Your task to perform on an android device: set the timer Image 0: 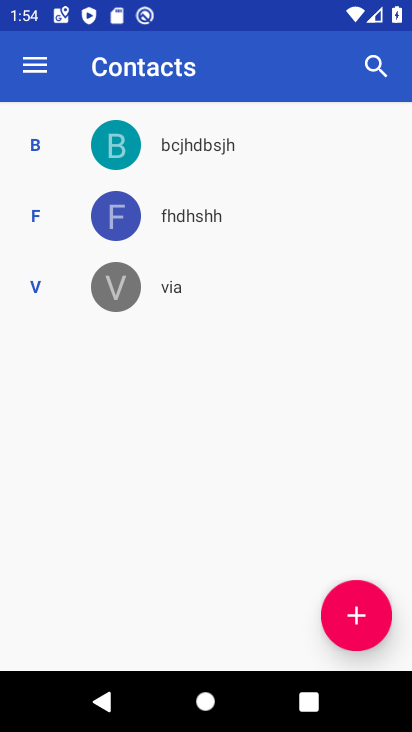
Step 0: press home button
Your task to perform on an android device: set the timer Image 1: 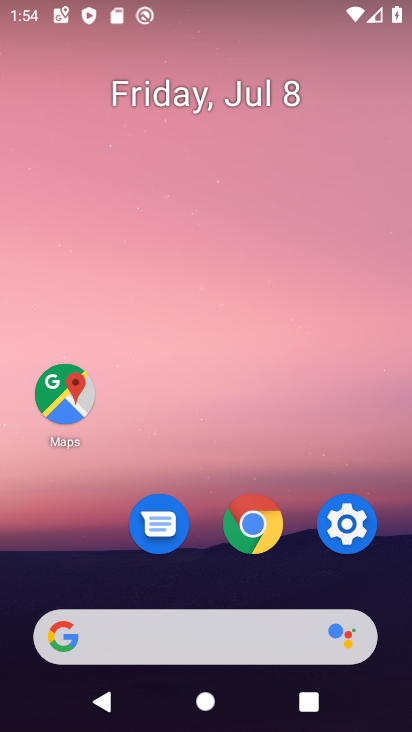
Step 1: drag from (243, 661) to (148, 167)
Your task to perform on an android device: set the timer Image 2: 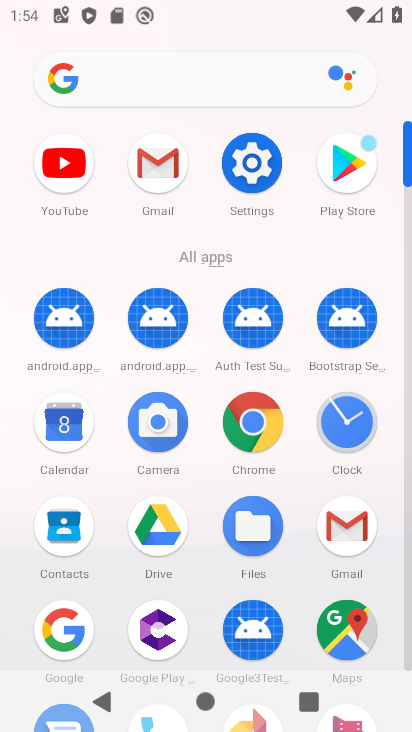
Step 2: click (331, 425)
Your task to perform on an android device: set the timer Image 3: 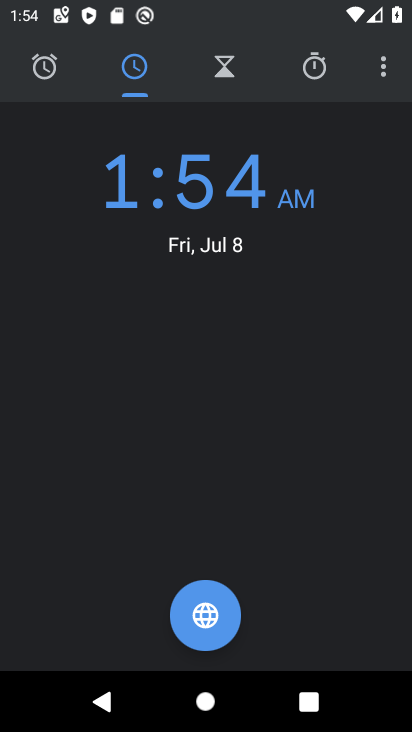
Step 3: click (216, 76)
Your task to perform on an android device: set the timer Image 4: 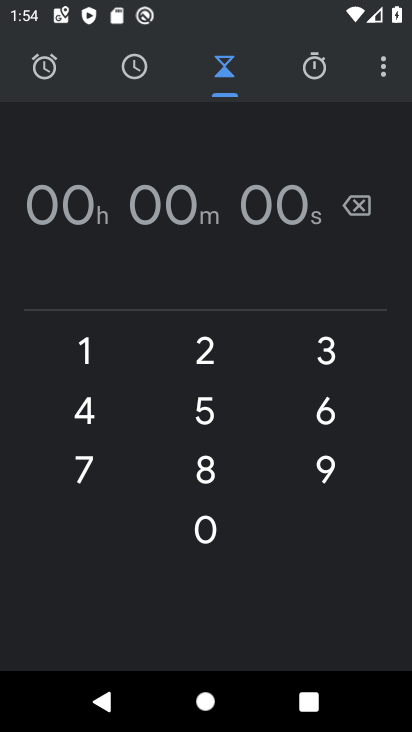
Step 4: click (207, 403)
Your task to perform on an android device: set the timer Image 5: 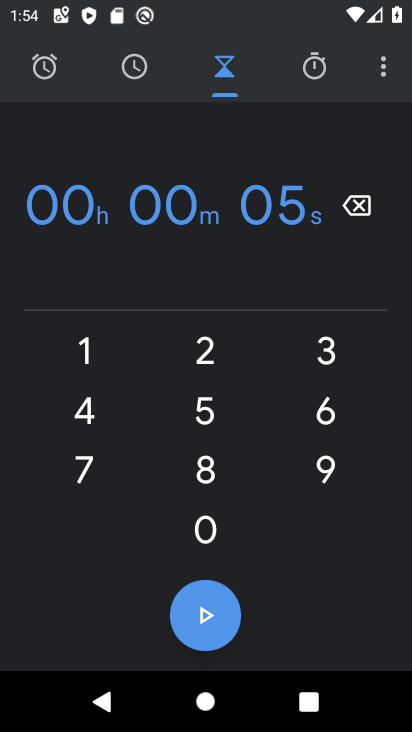
Step 5: click (186, 358)
Your task to perform on an android device: set the timer Image 6: 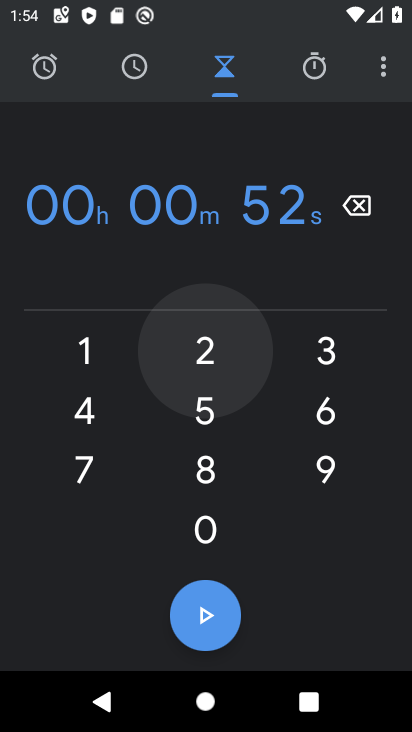
Step 6: click (77, 439)
Your task to perform on an android device: set the timer Image 7: 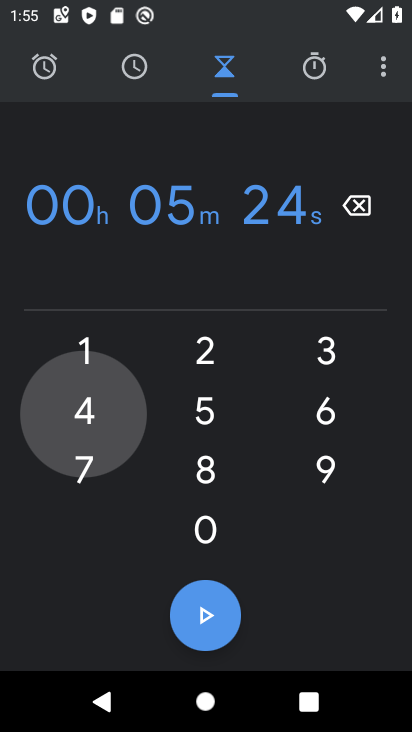
Step 7: click (195, 449)
Your task to perform on an android device: set the timer Image 8: 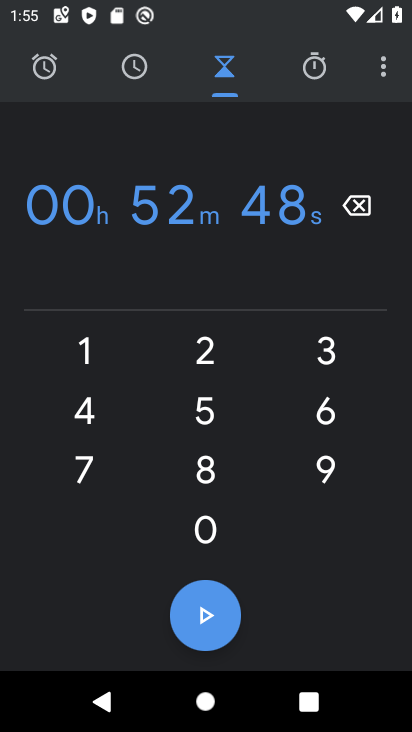
Step 8: click (237, 335)
Your task to perform on an android device: set the timer Image 9: 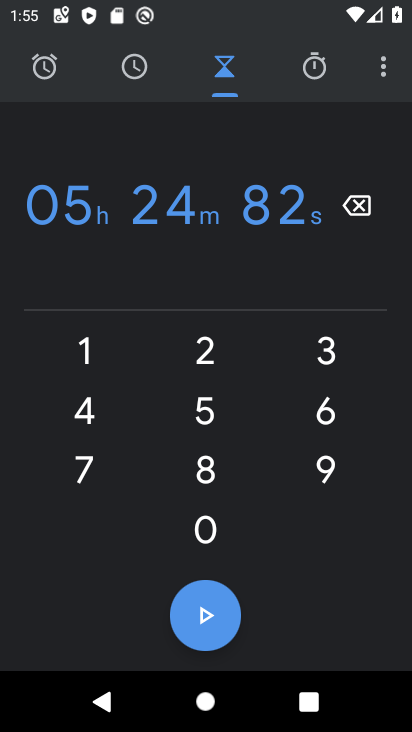
Step 9: task complete